Your task to perform on an android device: Check the weather Image 0: 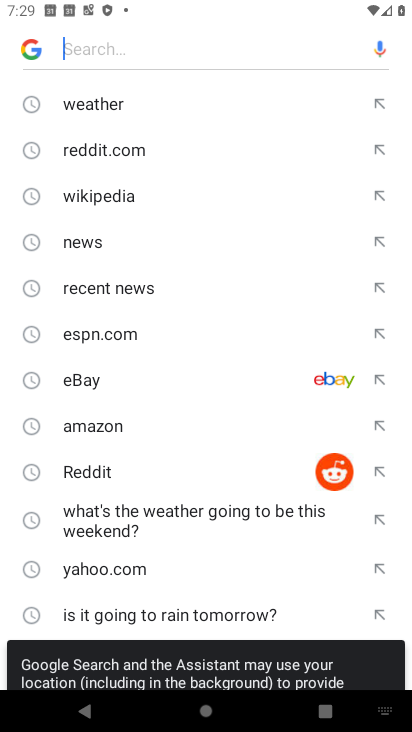
Step 0: press home button
Your task to perform on an android device: Check the weather Image 1: 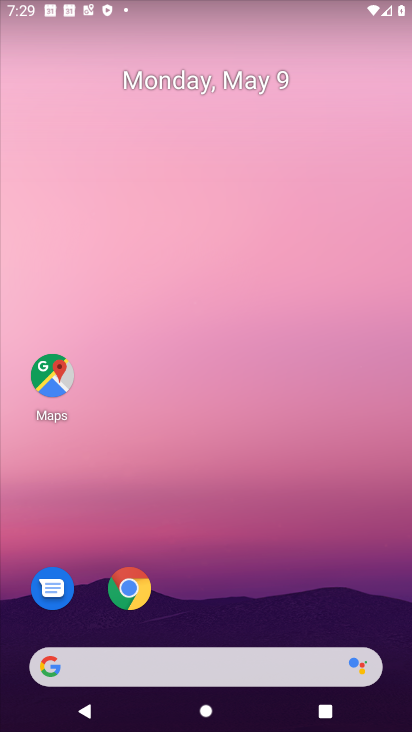
Step 1: click (53, 668)
Your task to perform on an android device: Check the weather Image 2: 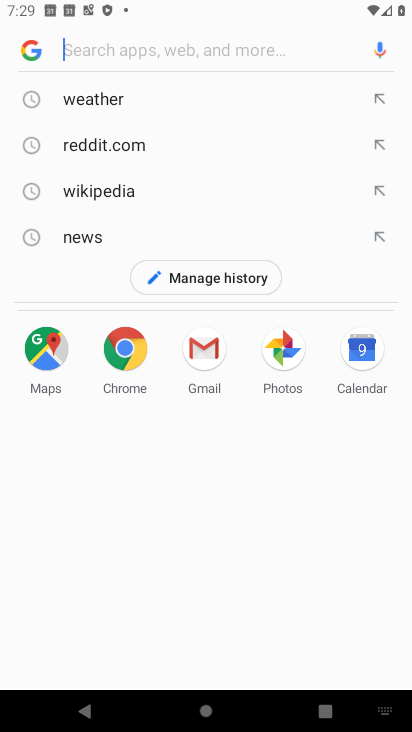
Step 2: click (90, 97)
Your task to perform on an android device: Check the weather Image 3: 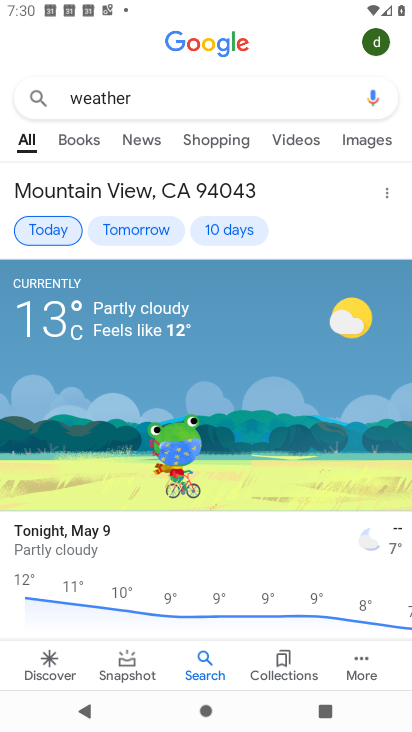
Step 3: task complete